Your task to perform on an android device: open the mobile data screen to see how much data has been used Image 0: 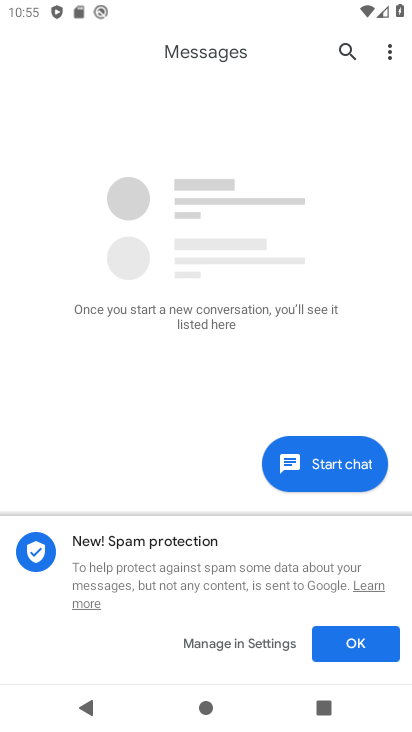
Step 0: press home button
Your task to perform on an android device: open the mobile data screen to see how much data has been used Image 1: 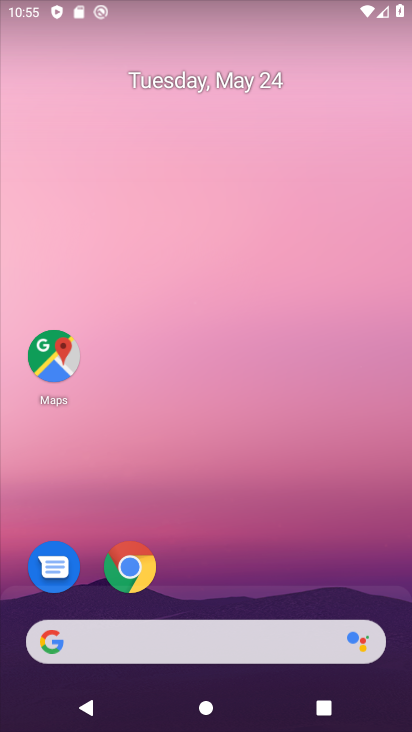
Step 1: drag from (270, 268) to (251, 81)
Your task to perform on an android device: open the mobile data screen to see how much data has been used Image 2: 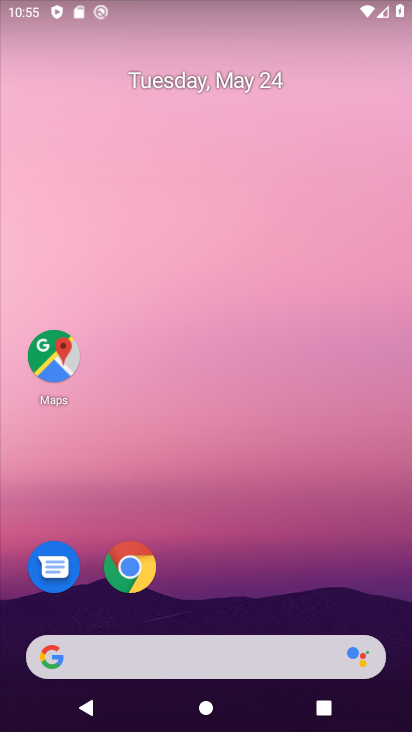
Step 2: drag from (273, 565) to (268, 74)
Your task to perform on an android device: open the mobile data screen to see how much data has been used Image 3: 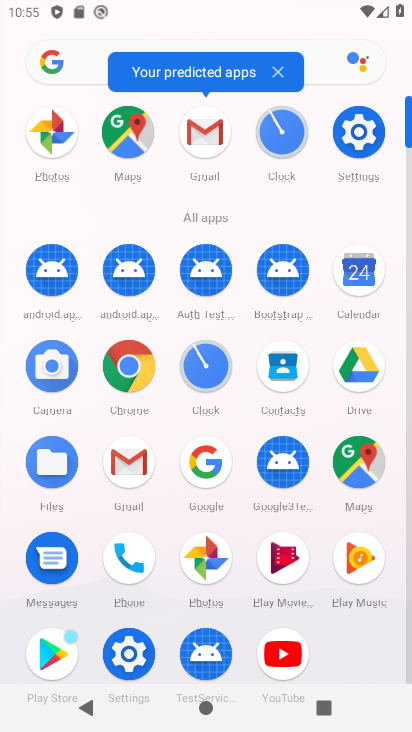
Step 3: click (357, 139)
Your task to perform on an android device: open the mobile data screen to see how much data has been used Image 4: 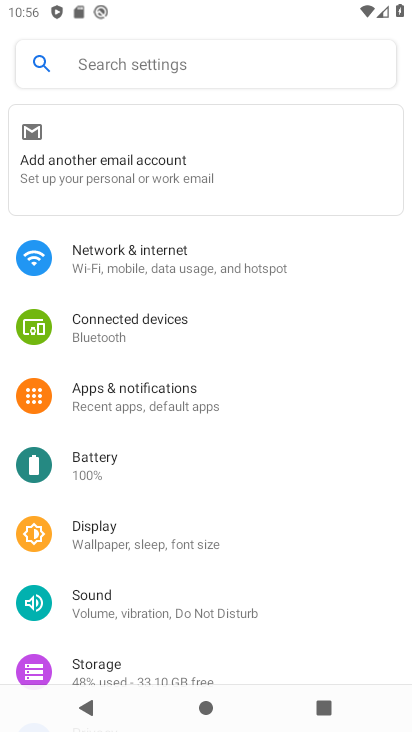
Step 4: click (179, 248)
Your task to perform on an android device: open the mobile data screen to see how much data has been used Image 5: 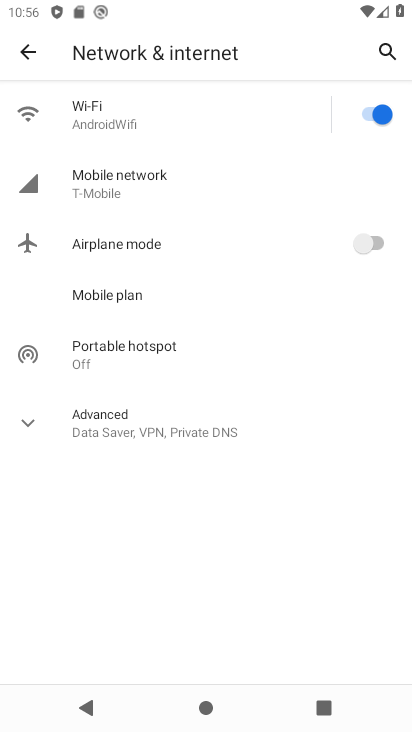
Step 5: click (171, 206)
Your task to perform on an android device: open the mobile data screen to see how much data has been used Image 6: 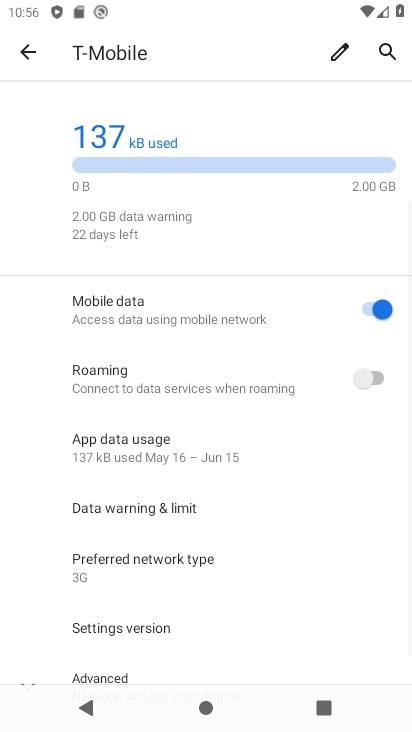
Step 6: task complete